Your task to perform on an android device: delete the emails in spam in the gmail app Image 0: 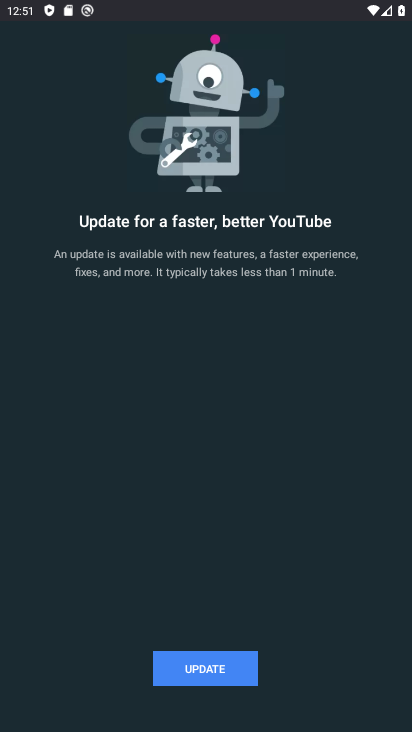
Step 0: press home button
Your task to perform on an android device: delete the emails in spam in the gmail app Image 1: 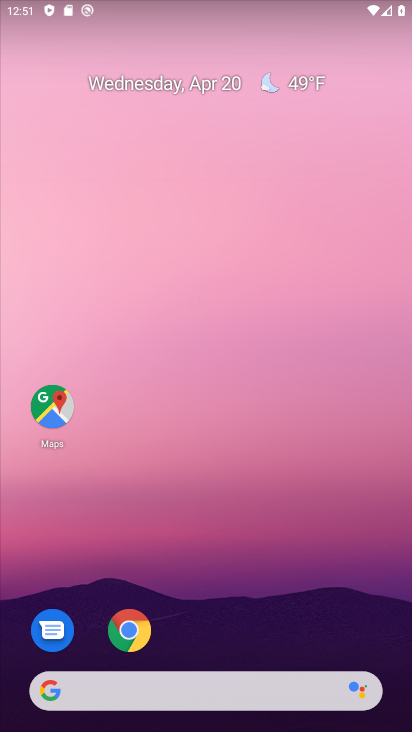
Step 1: drag from (289, 525) to (310, 132)
Your task to perform on an android device: delete the emails in spam in the gmail app Image 2: 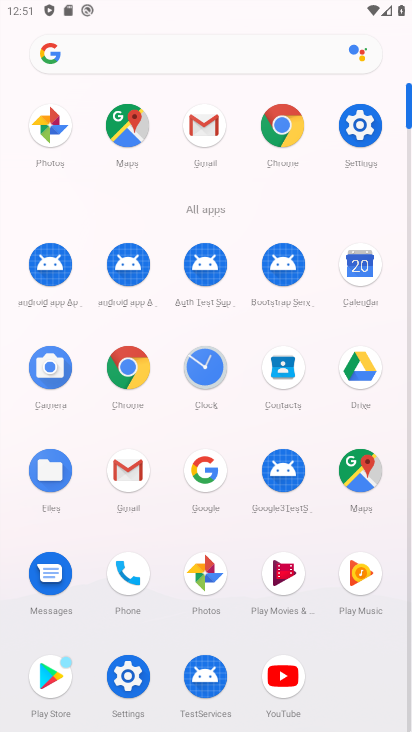
Step 2: click (124, 475)
Your task to perform on an android device: delete the emails in spam in the gmail app Image 3: 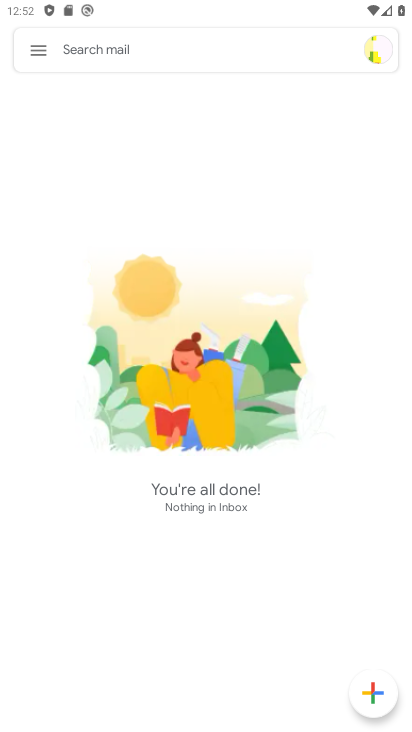
Step 3: click (41, 55)
Your task to perform on an android device: delete the emails in spam in the gmail app Image 4: 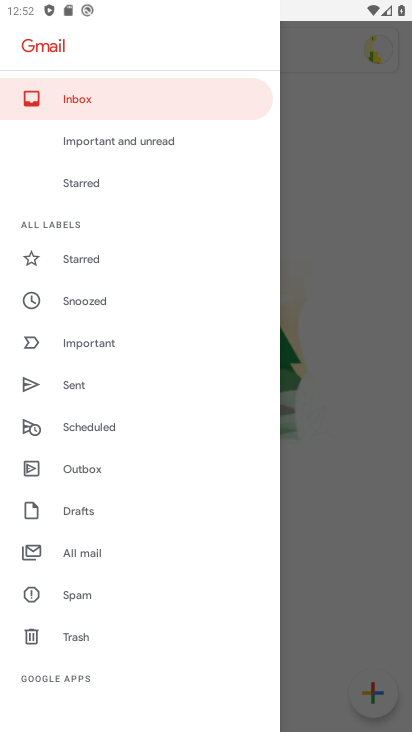
Step 4: click (81, 598)
Your task to perform on an android device: delete the emails in spam in the gmail app Image 5: 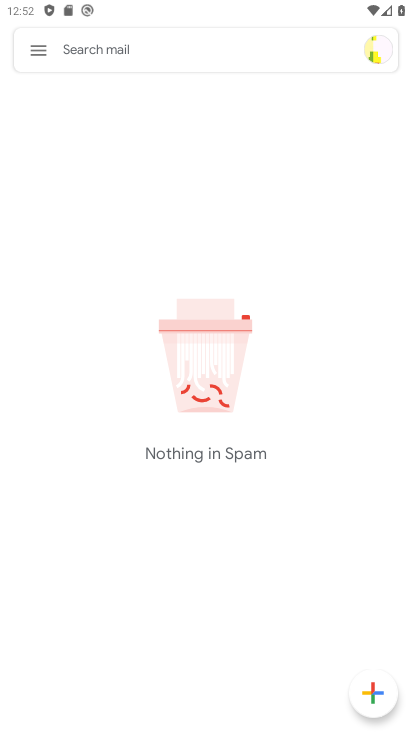
Step 5: task complete